Your task to perform on an android device: What's the latest technology news? Image 0: 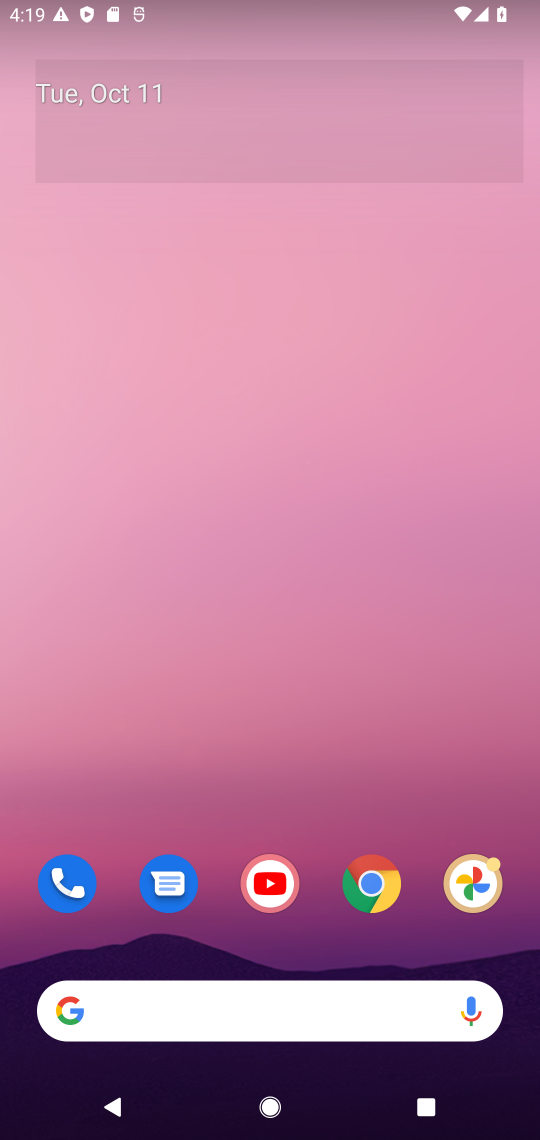
Step 0: drag from (286, 821) to (220, 156)
Your task to perform on an android device: What's the latest technology news? Image 1: 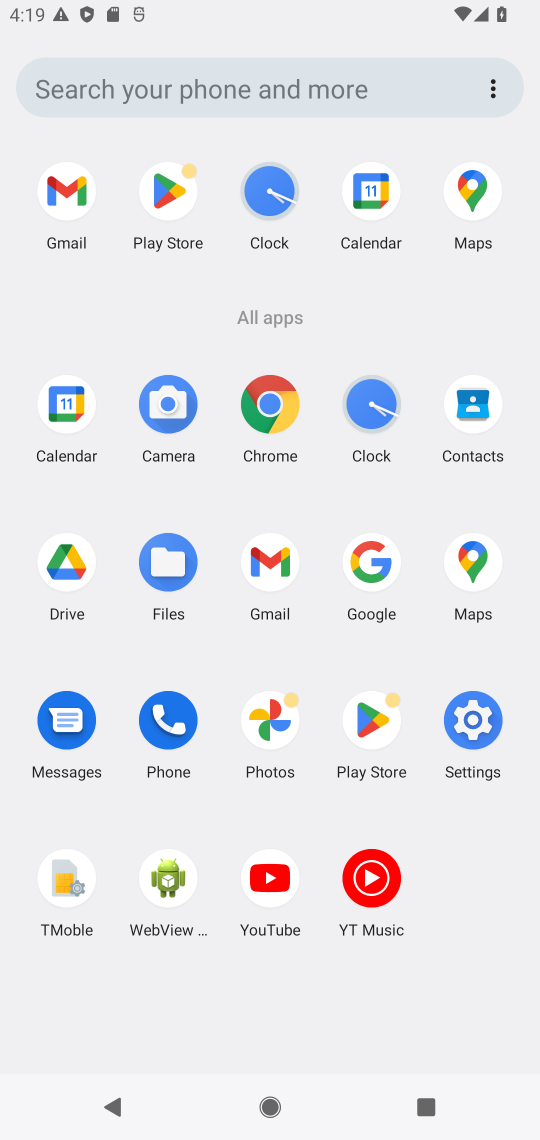
Step 1: click (269, 405)
Your task to perform on an android device: What's the latest technology news? Image 2: 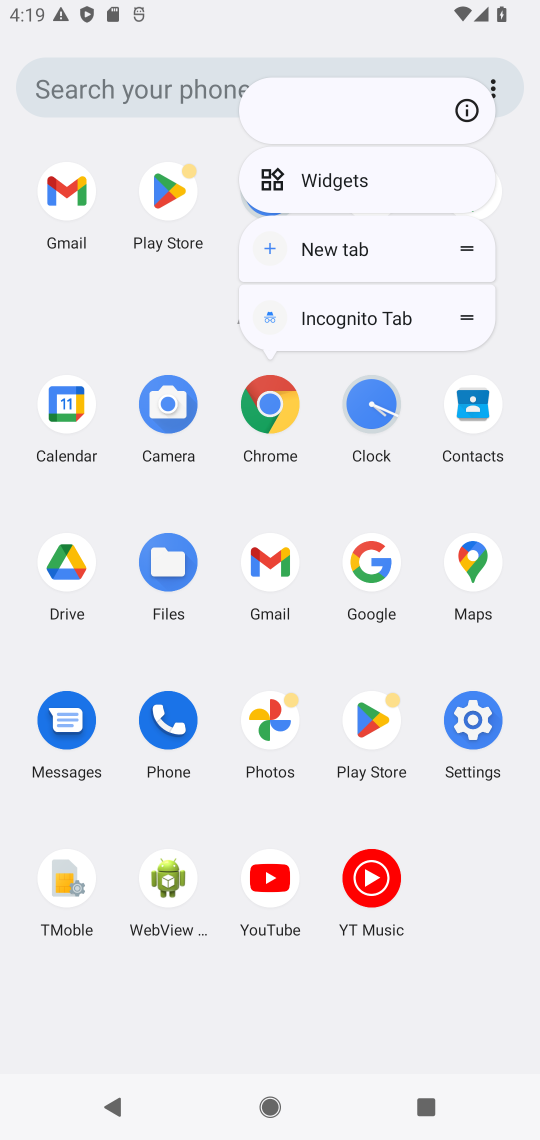
Step 2: click (269, 401)
Your task to perform on an android device: What's the latest technology news? Image 3: 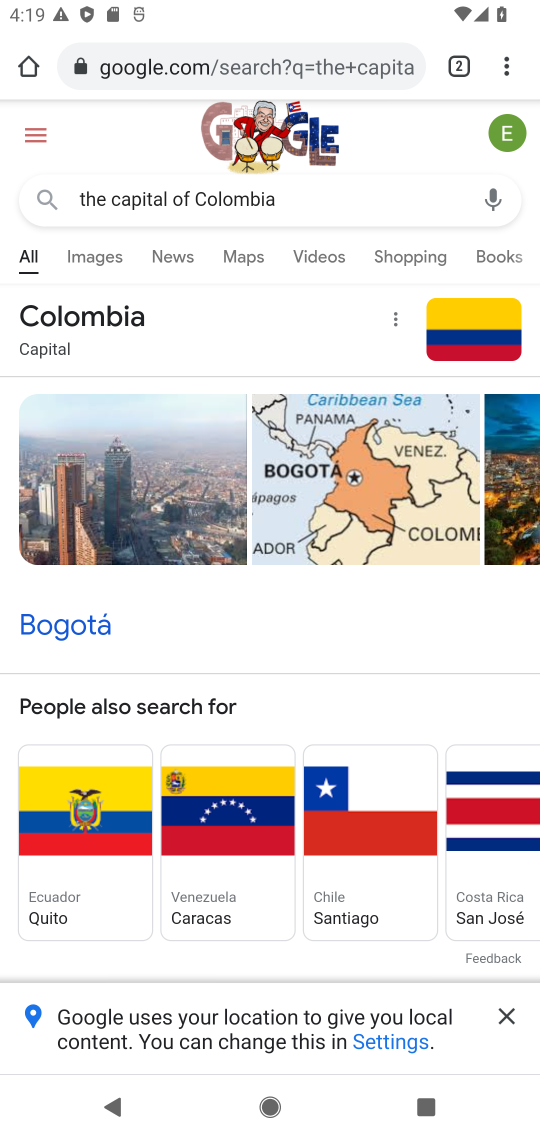
Step 3: click (245, 67)
Your task to perform on an android device: What's the latest technology news? Image 4: 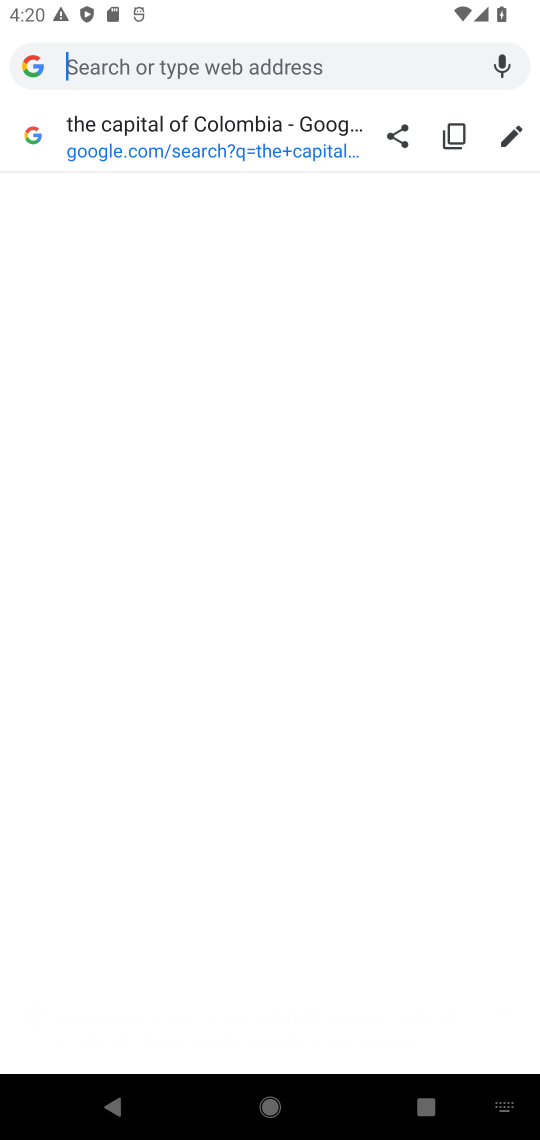
Step 4: type "what's the latest technology news?"
Your task to perform on an android device: What's the latest technology news? Image 5: 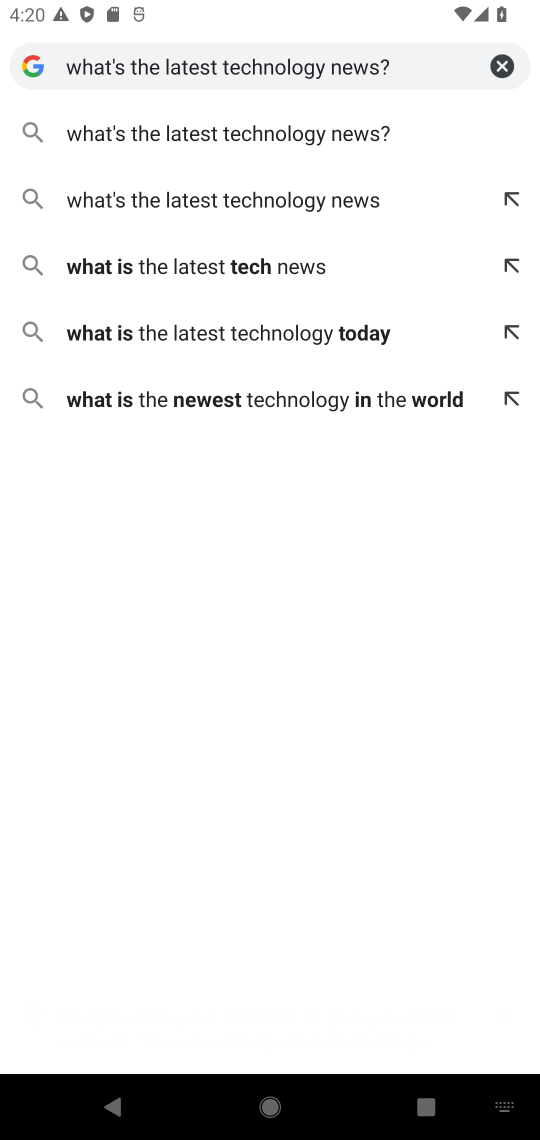
Step 5: press enter
Your task to perform on an android device: What's the latest technology news? Image 6: 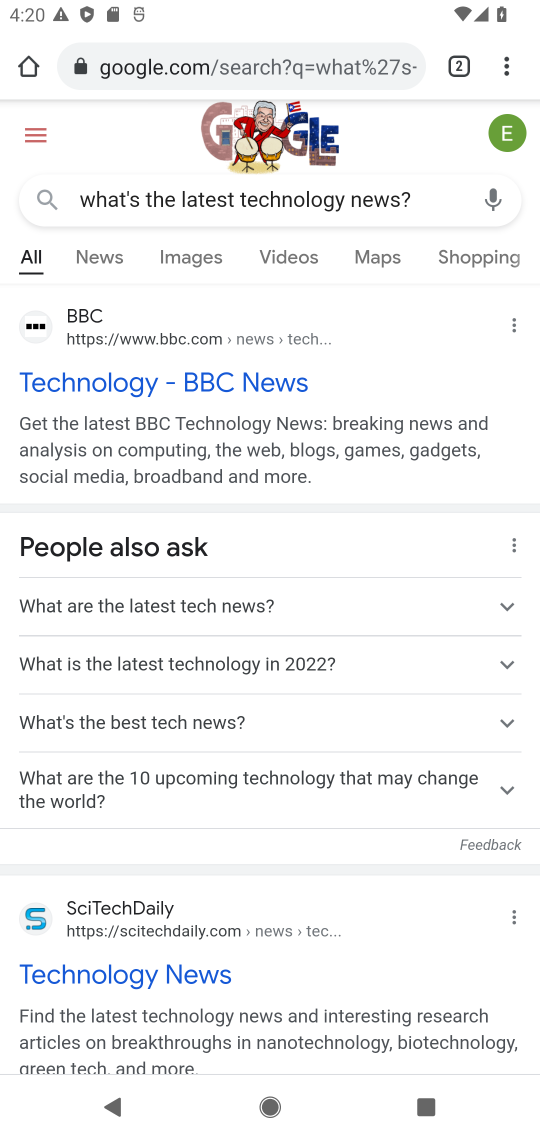
Step 6: click (142, 379)
Your task to perform on an android device: What's the latest technology news? Image 7: 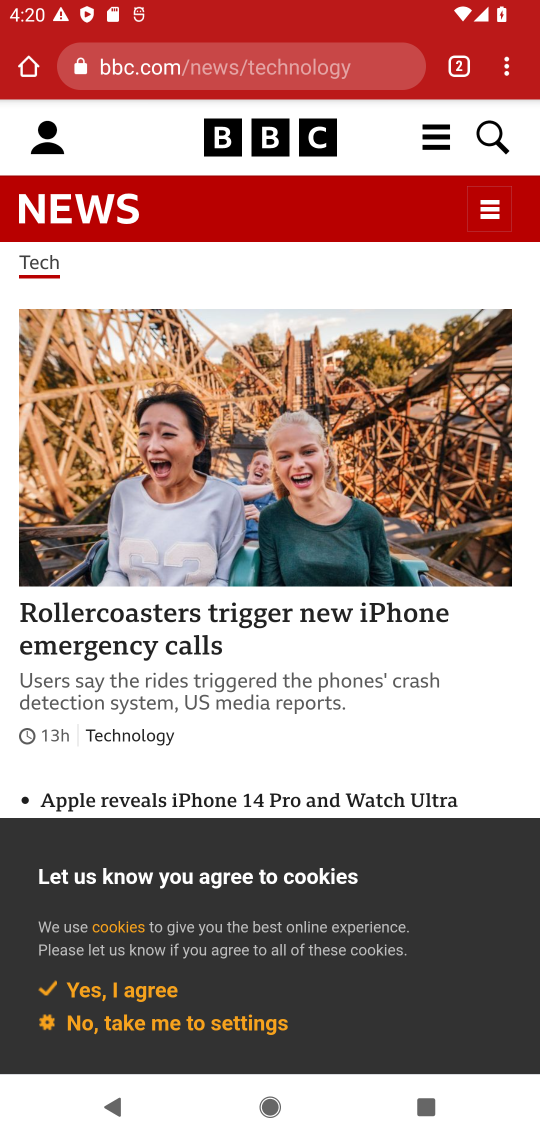
Step 7: task complete